Your task to perform on an android device: Go to Yahoo.com Image 0: 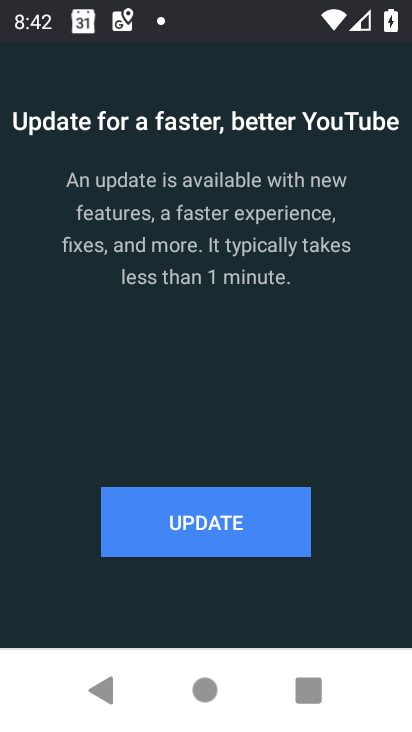
Step 0: press home button
Your task to perform on an android device: Go to Yahoo.com Image 1: 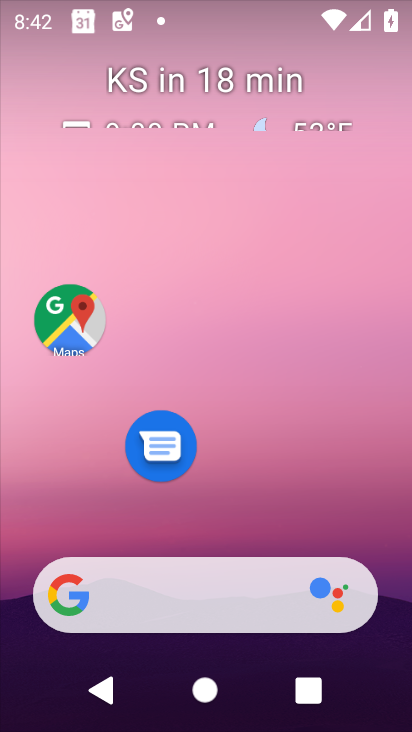
Step 1: drag from (180, 538) to (300, 22)
Your task to perform on an android device: Go to Yahoo.com Image 2: 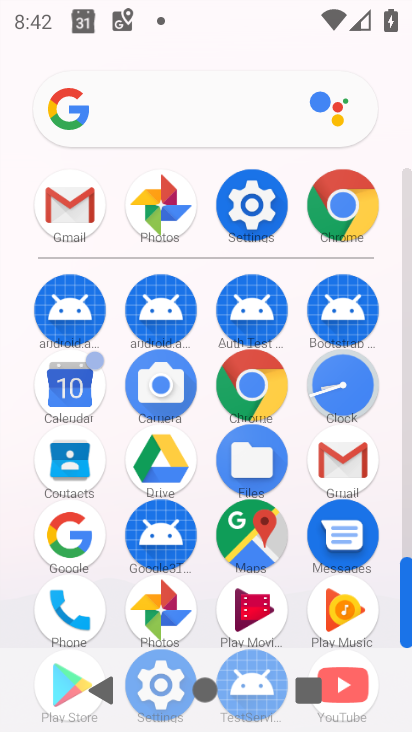
Step 2: click (344, 208)
Your task to perform on an android device: Go to Yahoo.com Image 3: 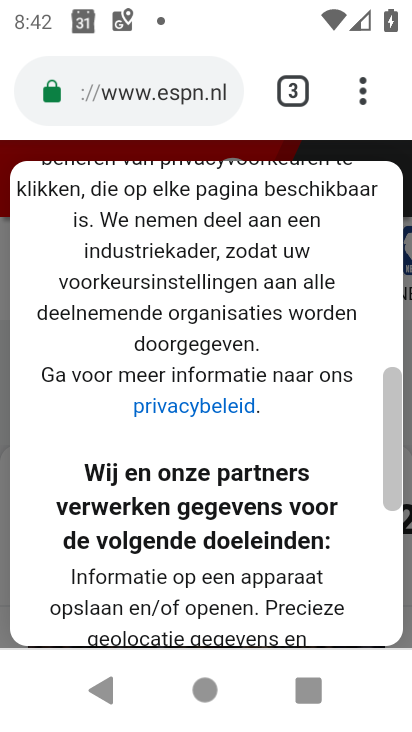
Step 3: click (287, 93)
Your task to perform on an android device: Go to Yahoo.com Image 4: 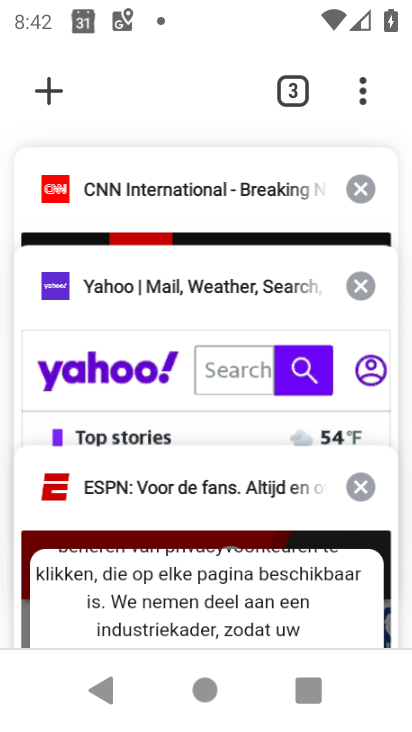
Step 4: click (94, 355)
Your task to perform on an android device: Go to Yahoo.com Image 5: 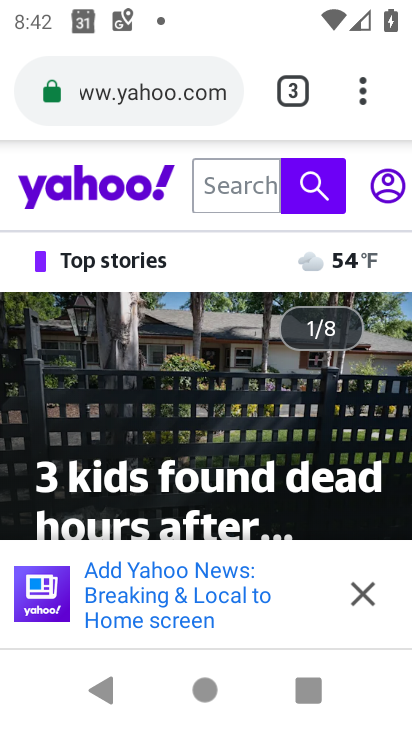
Step 5: task complete